Your task to perform on an android device: Search for sushi restaurants on Maps Image 0: 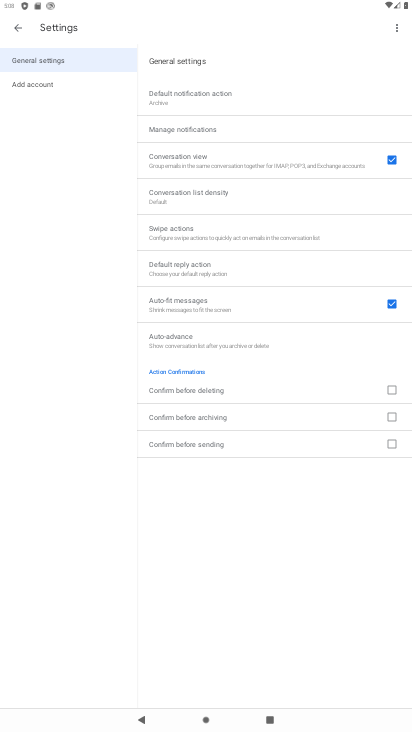
Step 0: press home button
Your task to perform on an android device: Search for sushi restaurants on Maps Image 1: 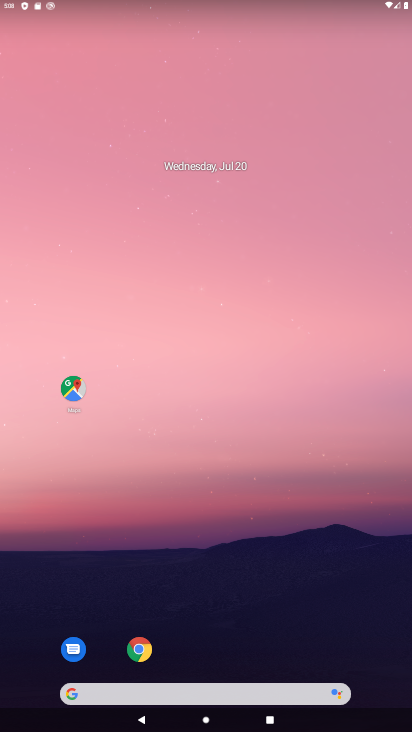
Step 1: drag from (310, 591) to (337, 27)
Your task to perform on an android device: Search for sushi restaurants on Maps Image 2: 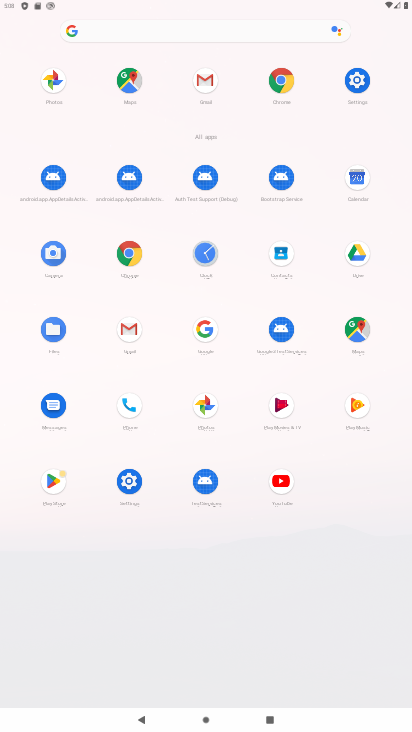
Step 2: click (128, 85)
Your task to perform on an android device: Search for sushi restaurants on Maps Image 3: 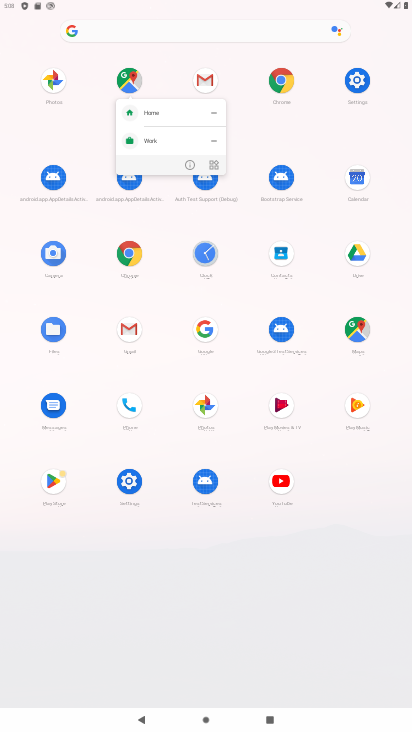
Step 3: click (130, 84)
Your task to perform on an android device: Search for sushi restaurants on Maps Image 4: 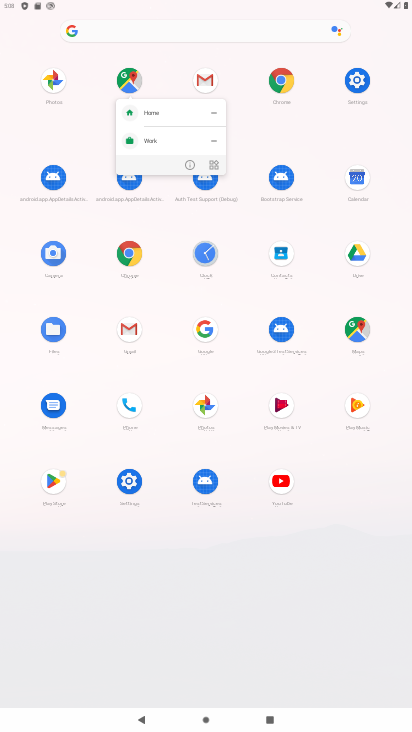
Step 4: click (131, 81)
Your task to perform on an android device: Search for sushi restaurants on Maps Image 5: 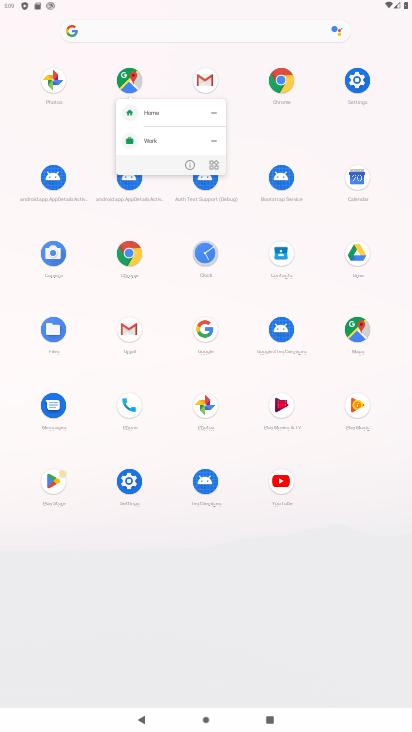
Step 5: click (131, 82)
Your task to perform on an android device: Search for sushi restaurants on Maps Image 6: 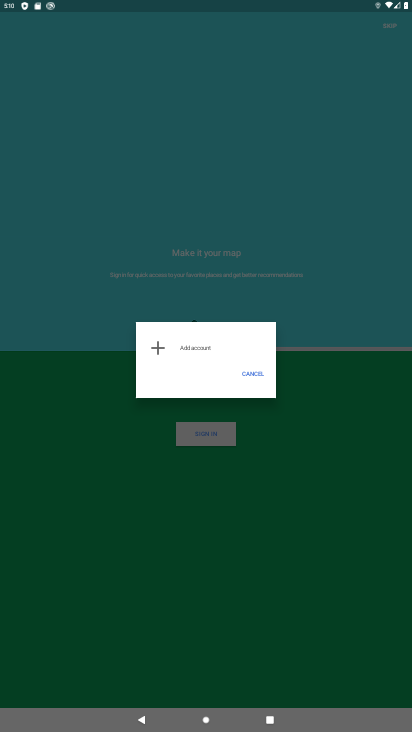
Step 6: task complete